Your task to perform on an android device: turn vacation reply on in the gmail app Image 0: 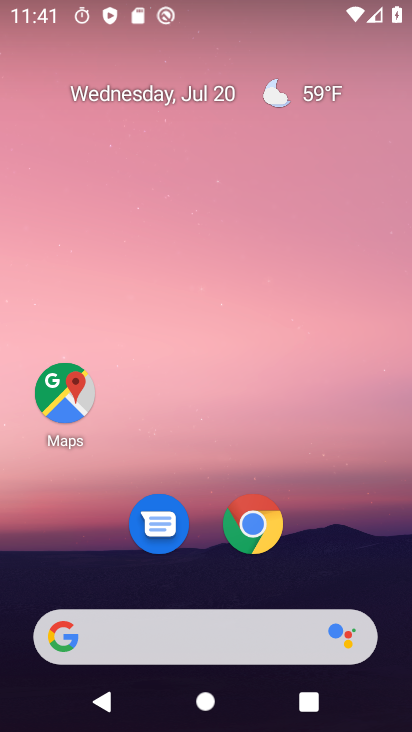
Step 0: drag from (246, 632) to (224, 137)
Your task to perform on an android device: turn vacation reply on in the gmail app Image 1: 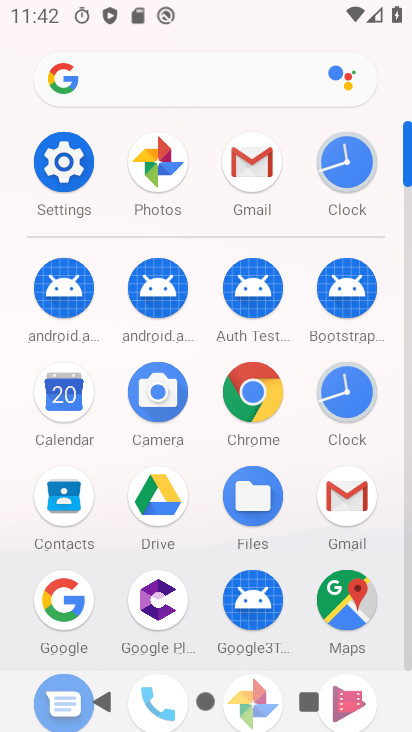
Step 1: click (347, 510)
Your task to perform on an android device: turn vacation reply on in the gmail app Image 2: 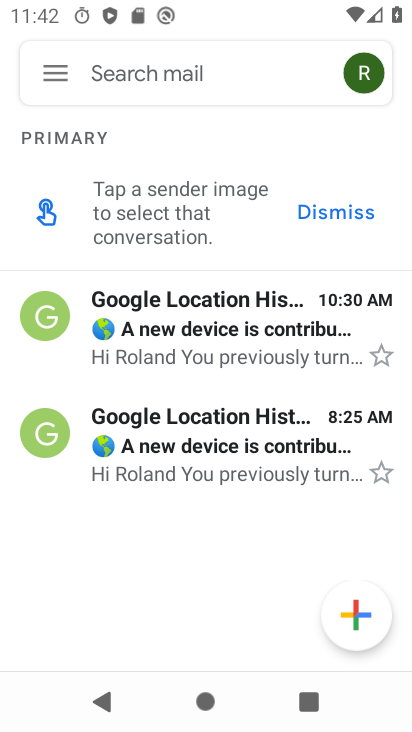
Step 2: click (56, 71)
Your task to perform on an android device: turn vacation reply on in the gmail app Image 3: 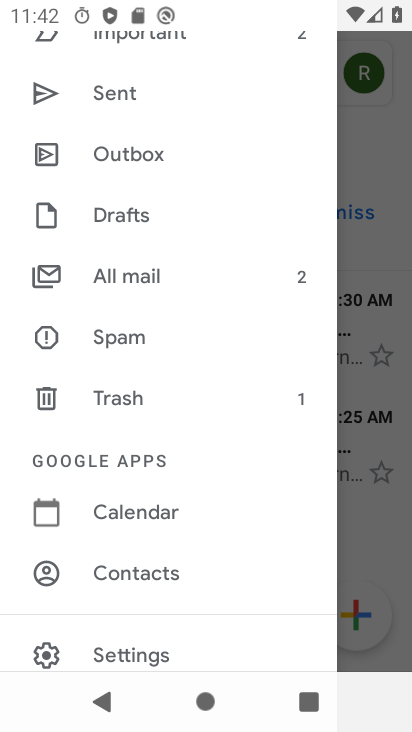
Step 3: click (134, 649)
Your task to perform on an android device: turn vacation reply on in the gmail app Image 4: 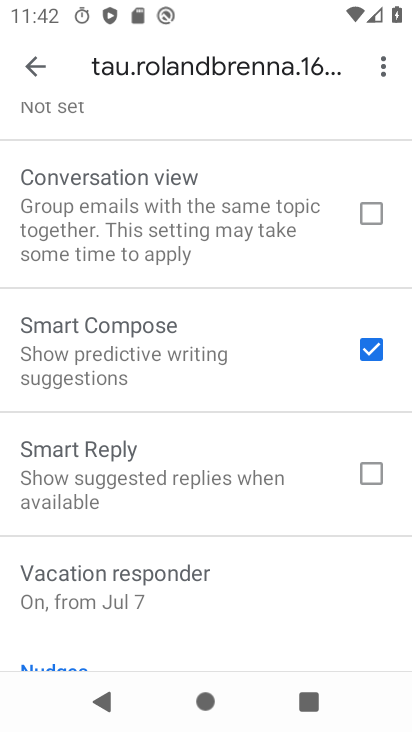
Step 4: click (135, 575)
Your task to perform on an android device: turn vacation reply on in the gmail app Image 5: 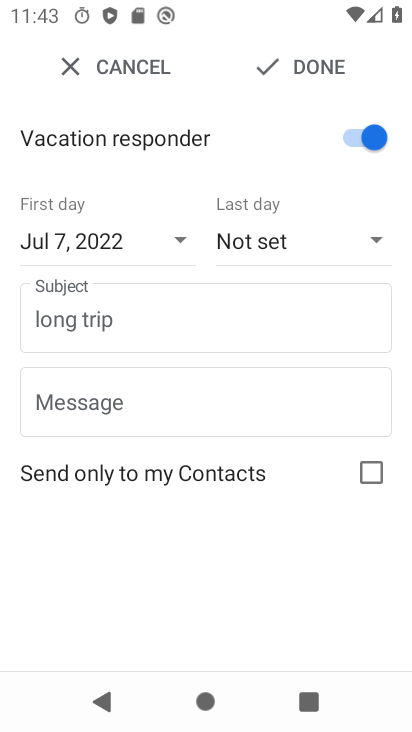
Step 5: task complete